Your task to perform on an android device: turn off priority inbox in the gmail app Image 0: 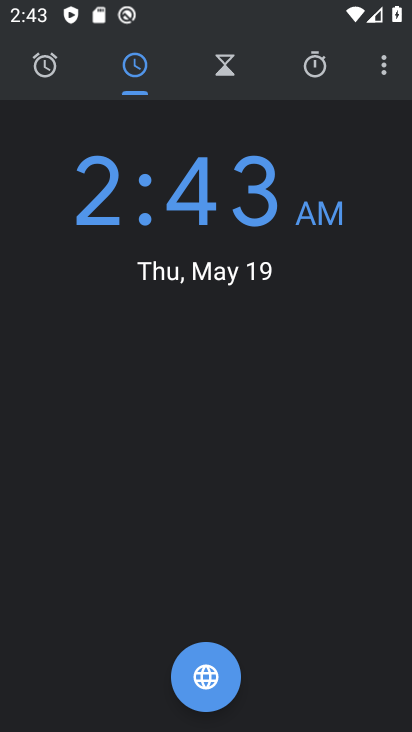
Step 0: press home button
Your task to perform on an android device: turn off priority inbox in the gmail app Image 1: 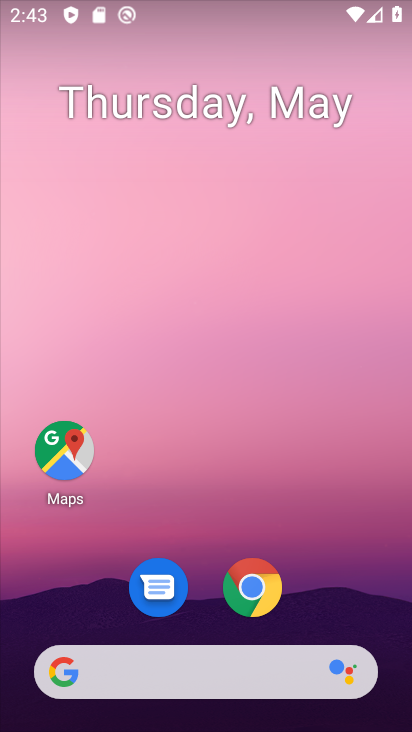
Step 1: drag from (396, 612) to (391, 17)
Your task to perform on an android device: turn off priority inbox in the gmail app Image 2: 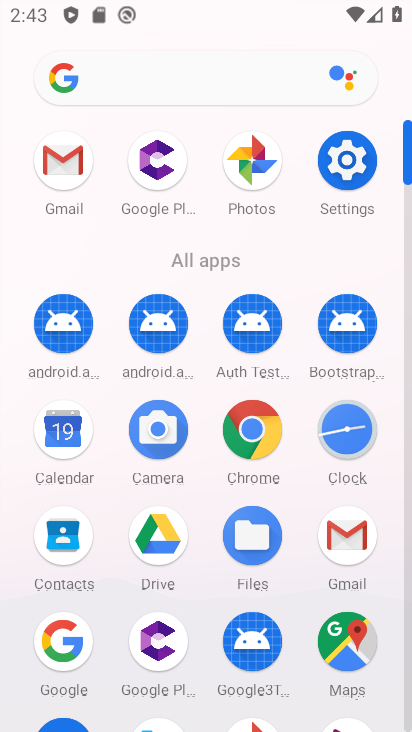
Step 2: click (81, 154)
Your task to perform on an android device: turn off priority inbox in the gmail app Image 3: 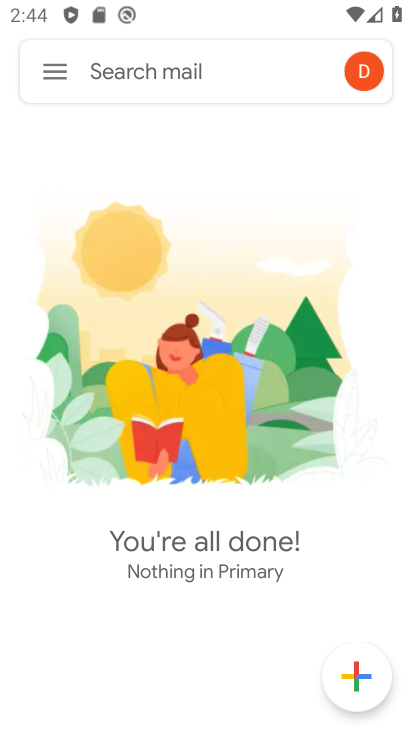
Step 3: click (67, 75)
Your task to perform on an android device: turn off priority inbox in the gmail app Image 4: 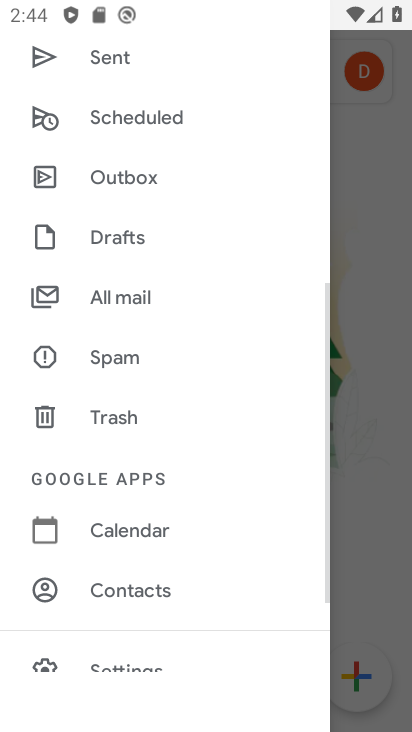
Step 4: drag from (155, 667) to (124, 144)
Your task to perform on an android device: turn off priority inbox in the gmail app Image 5: 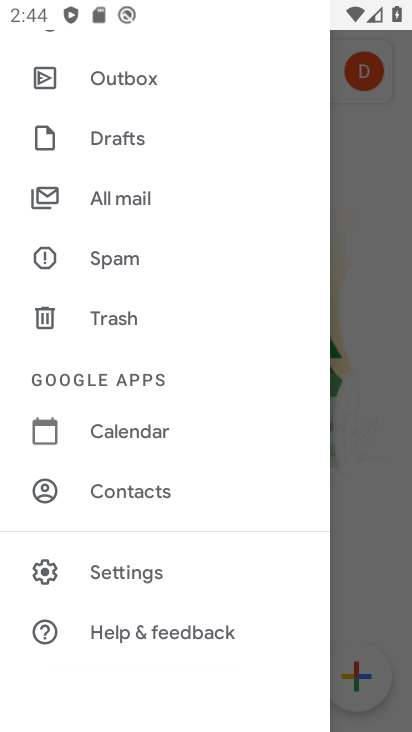
Step 5: click (140, 570)
Your task to perform on an android device: turn off priority inbox in the gmail app Image 6: 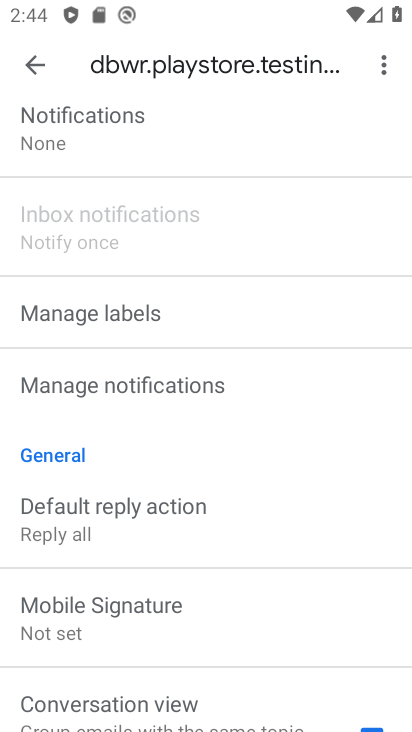
Step 6: task complete